Your task to perform on an android device: Search for pizza restaurants on Maps Image 0: 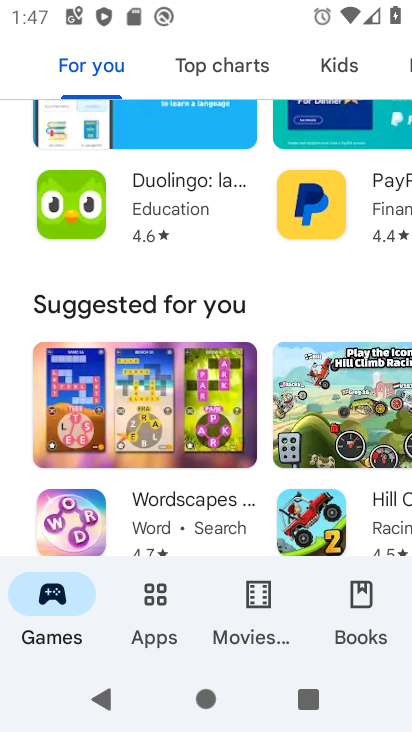
Step 0: press home button
Your task to perform on an android device: Search for pizza restaurants on Maps Image 1: 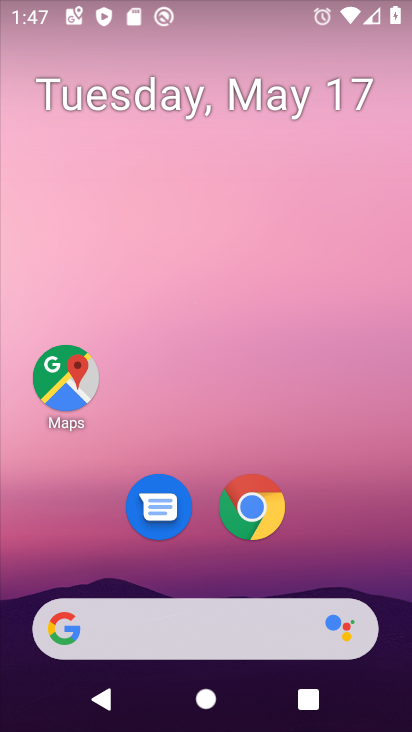
Step 1: click (63, 387)
Your task to perform on an android device: Search for pizza restaurants on Maps Image 2: 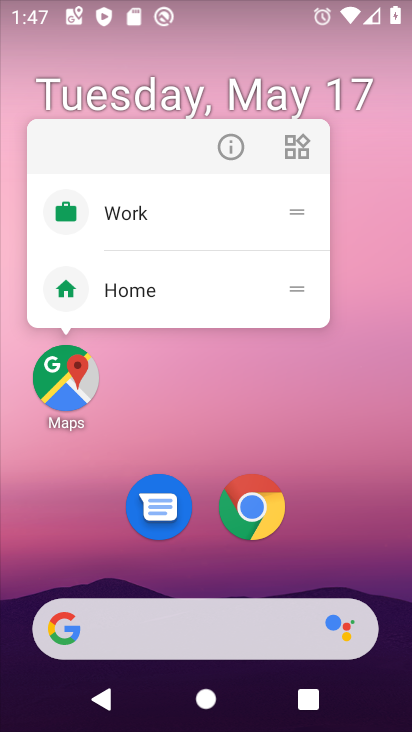
Step 2: click (64, 385)
Your task to perform on an android device: Search for pizza restaurants on Maps Image 3: 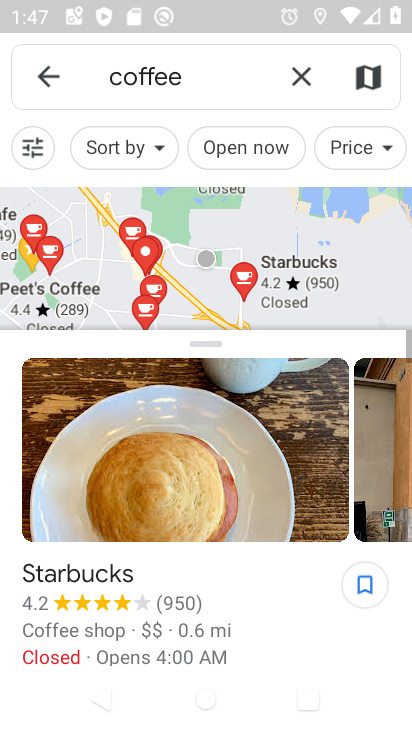
Step 3: click (295, 77)
Your task to perform on an android device: Search for pizza restaurants on Maps Image 4: 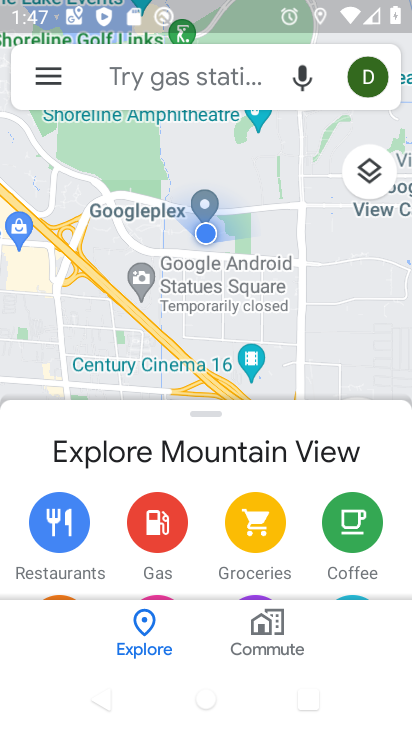
Step 4: click (155, 73)
Your task to perform on an android device: Search for pizza restaurants on Maps Image 5: 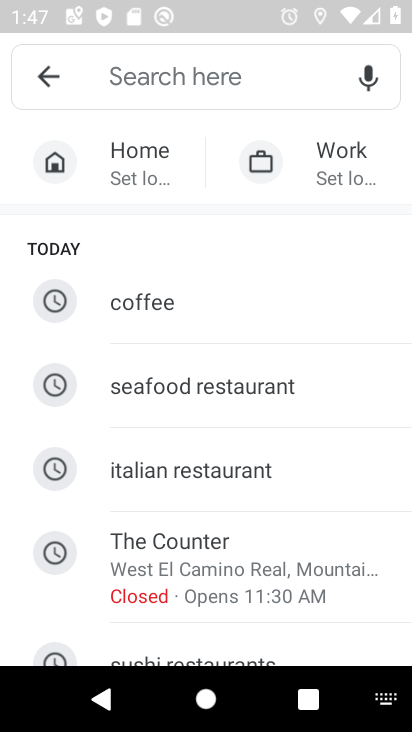
Step 5: drag from (141, 546) to (185, 374)
Your task to perform on an android device: Search for pizza restaurants on Maps Image 6: 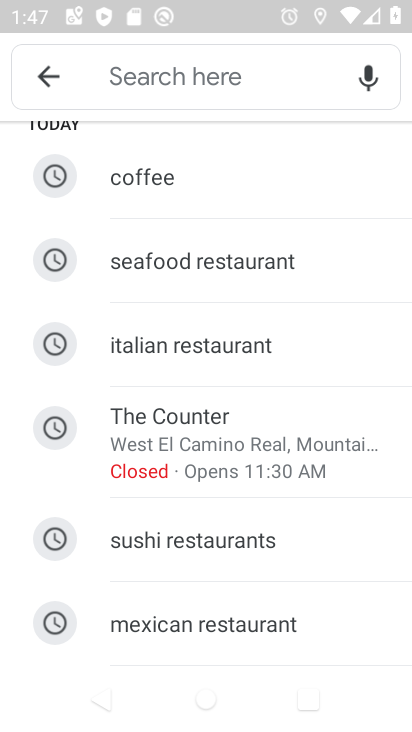
Step 6: drag from (174, 601) to (259, 325)
Your task to perform on an android device: Search for pizza restaurants on Maps Image 7: 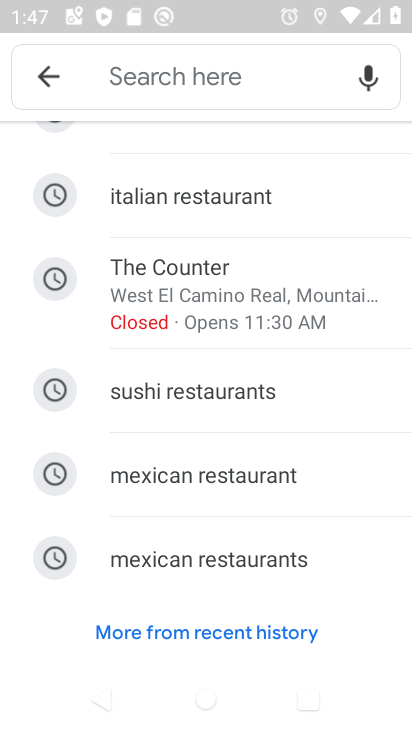
Step 7: drag from (169, 251) to (161, 591)
Your task to perform on an android device: Search for pizza restaurants on Maps Image 8: 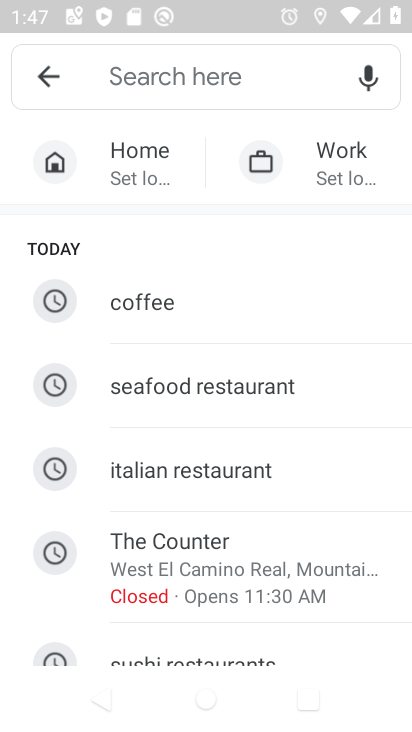
Step 8: drag from (183, 606) to (243, 258)
Your task to perform on an android device: Search for pizza restaurants on Maps Image 9: 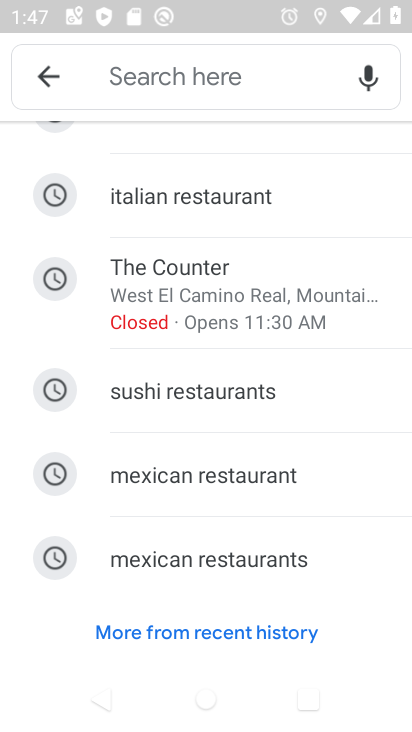
Step 9: click (160, 63)
Your task to perform on an android device: Search for pizza restaurants on Maps Image 10: 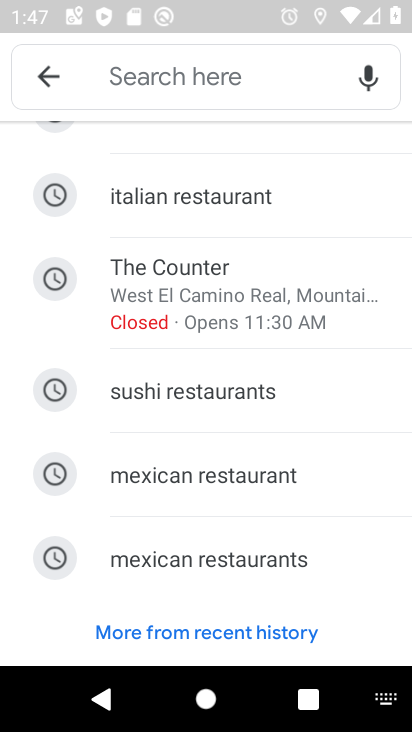
Step 10: type "pizza restaurants "
Your task to perform on an android device: Search for pizza restaurants on Maps Image 11: 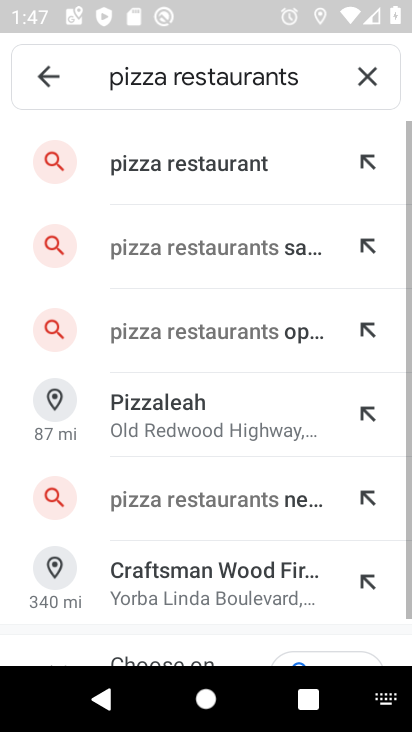
Step 11: click (169, 155)
Your task to perform on an android device: Search for pizza restaurants on Maps Image 12: 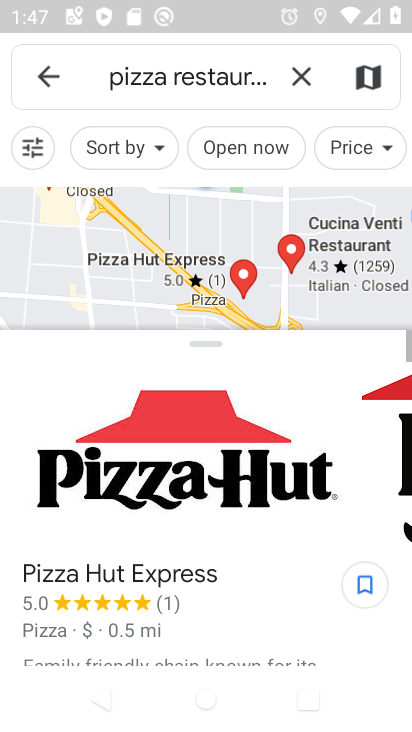
Step 12: task complete